Your task to perform on an android device: Open ESPN.com Image 0: 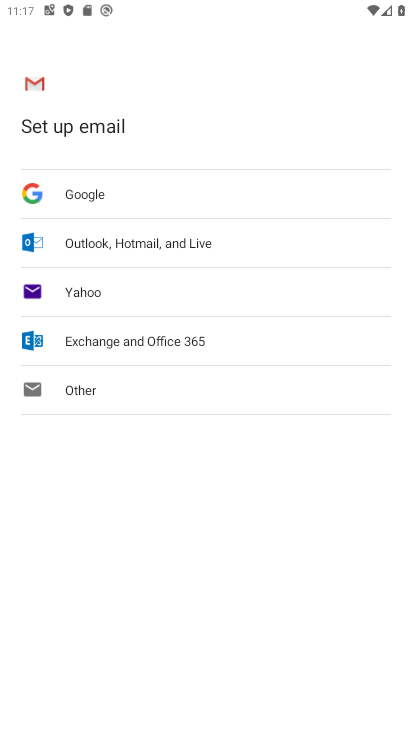
Step 0: press home button
Your task to perform on an android device: Open ESPN.com Image 1: 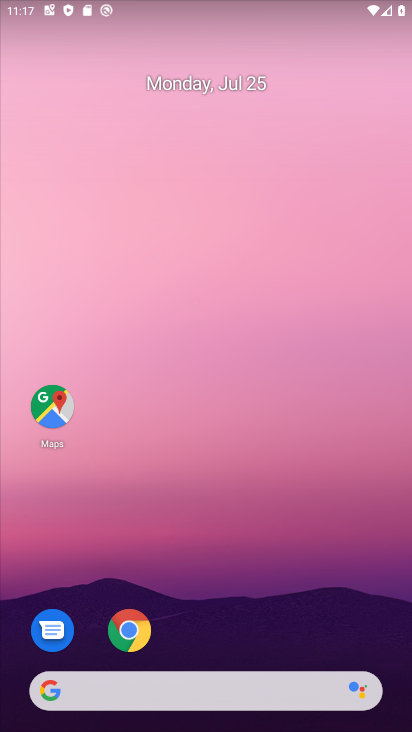
Step 1: drag from (352, 594) to (343, 291)
Your task to perform on an android device: Open ESPN.com Image 2: 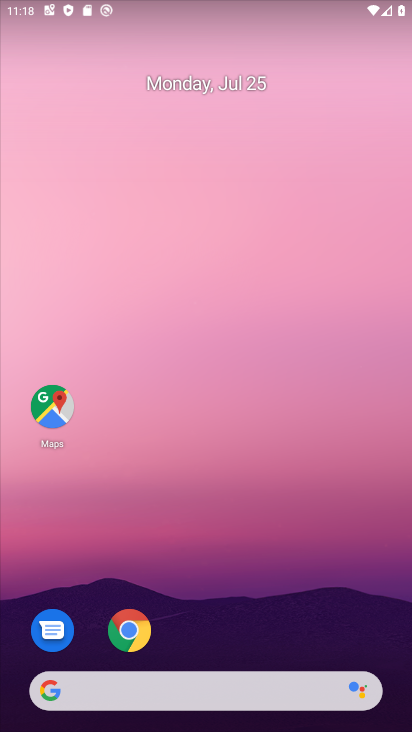
Step 2: drag from (326, 633) to (333, 103)
Your task to perform on an android device: Open ESPN.com Image 3: 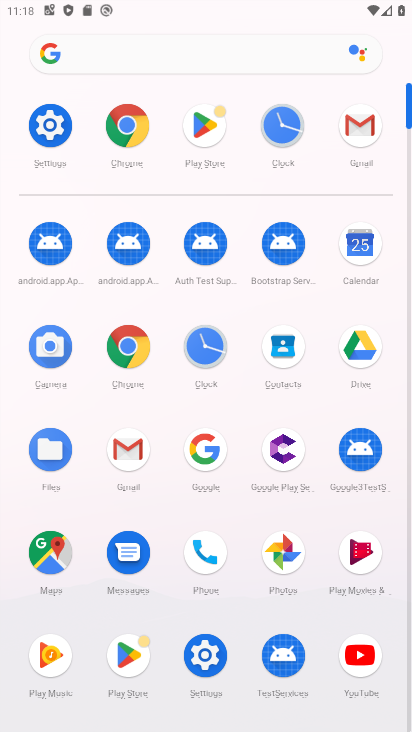
Step 3: click (135, 132)
Your task to perform on an android device: Open ESPN.com Image 4: 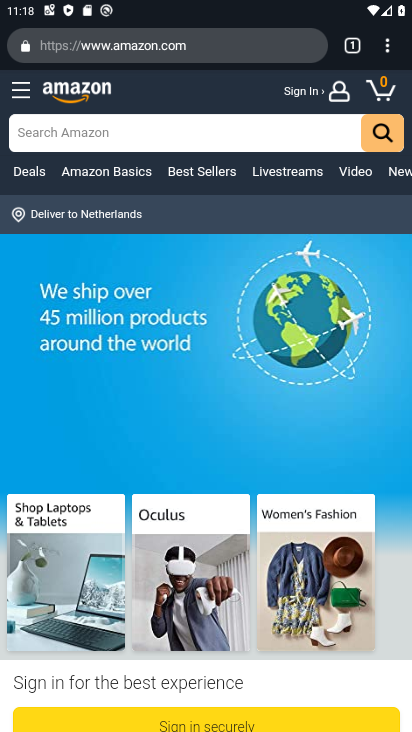
Step 4: click (235, 39)
Your task to perform on an android device: Open ESPN.com Image 5: 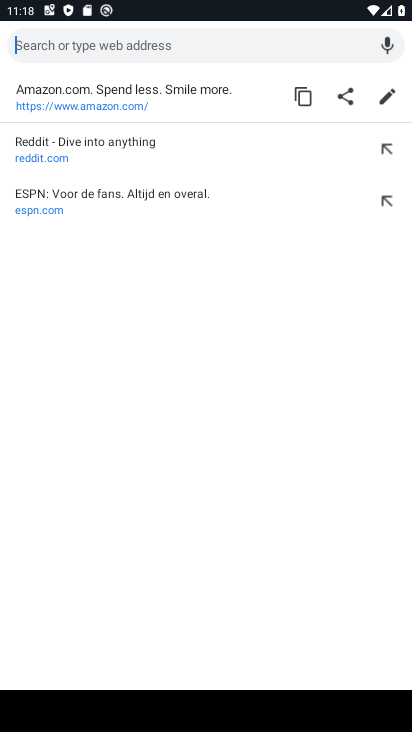
Step 5: type "espn.com"
Your task to perform on an android device: Open ESPN.com Image 6: 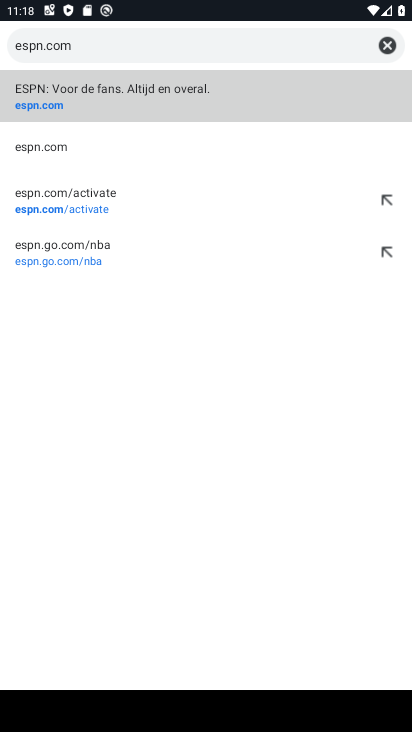
Step 6: click (295, 91)
Your task to perform on an android device: Open ESPN.com Image 7: 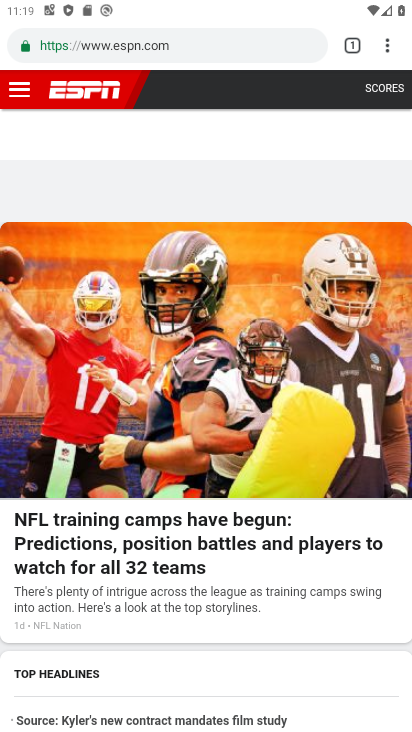
Step 7: task complete